Your task to perform on an android device: check data usage Image 0: 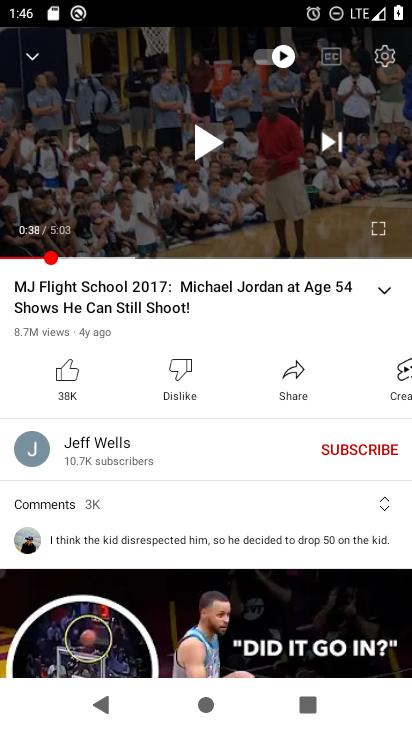
Step 0: press home button
Your task to perform on an android device: check data usage Image 1: 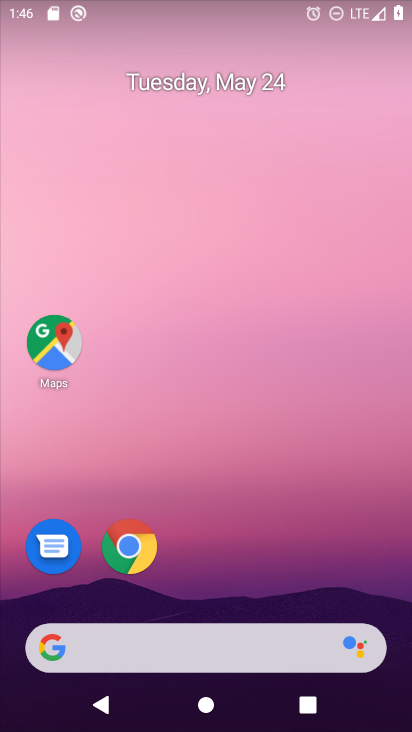
Step 1: drag from (289, 513) to (408, 26)
Your task to perform on an android device: check data usage Image 2: 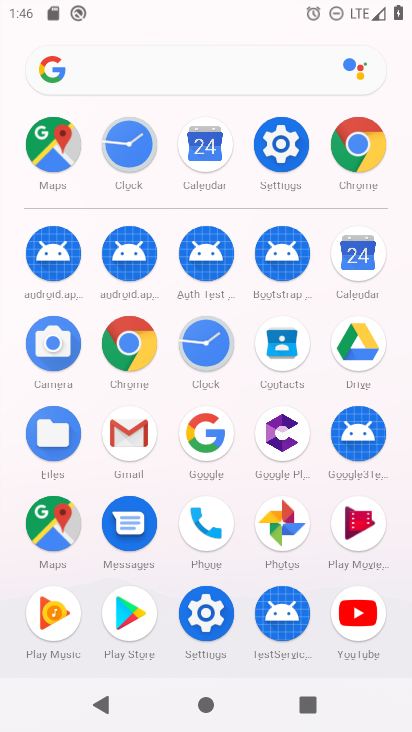
Step 2: click (281, 145)
Your task to perform on an android device: check data usage Image 3: 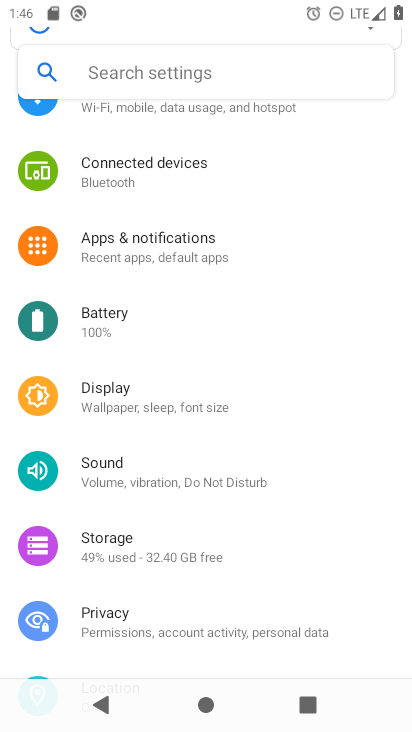
Step 3: drag from (279, 248) to (313, 642)
Your task to perform on an android device: check data usage Image 4: 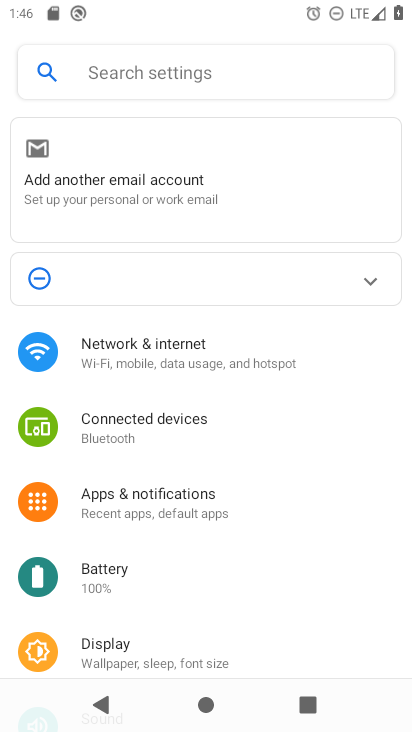
Step 4: click (230, 366)
Your task to perform on an android device: check data usage Image 5: 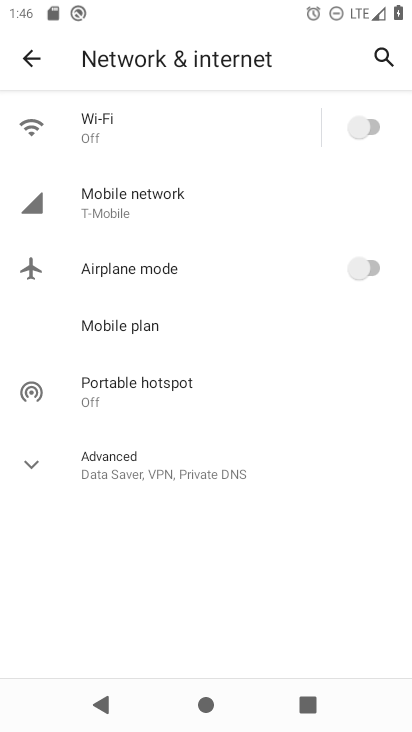
Step 5: click (187, 203)
Your task to perform on an android device: check data usage Image 6: 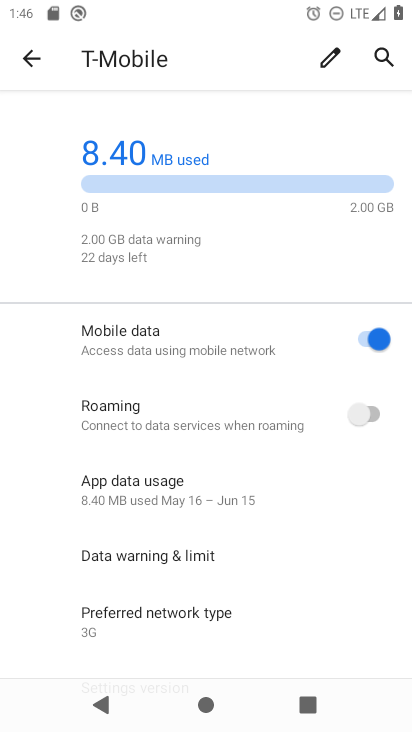
Step 6: task complete